Your task to perform on an android device: Open network settings Image 0: 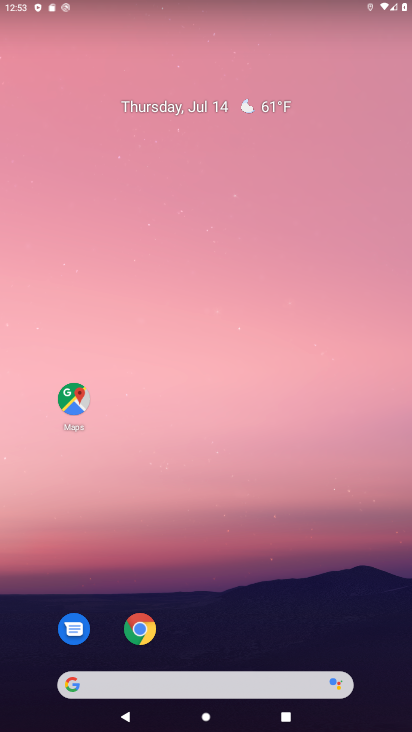
Step 0: drag from (204, 633) to (266, 57)
Your task to perform on an android device: Open network settings Image 1: 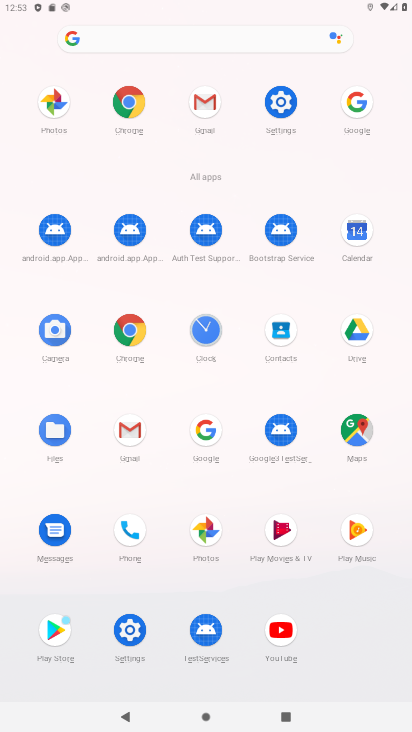
Step 1: click (282, 98)
Your task to perform on an android device: Open network settings Image 2: 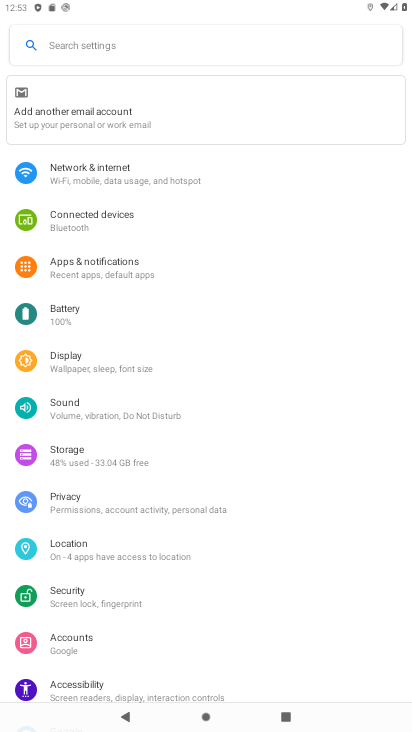
Step 2: click (142, 177)
Your task to perform on an android device: Open network settings Image 3: 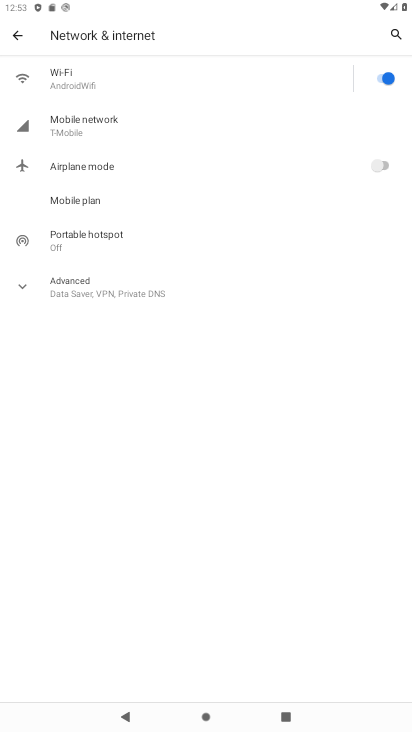
Step 3: click (152, 124)
Your task to perform on an android device: Open network settings Image 4: 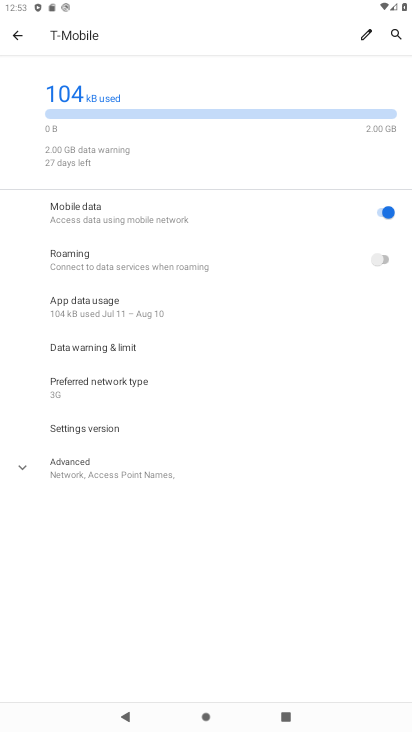
Step 4: task complete